Your task to perform on an android device: toggle location history Image 0: 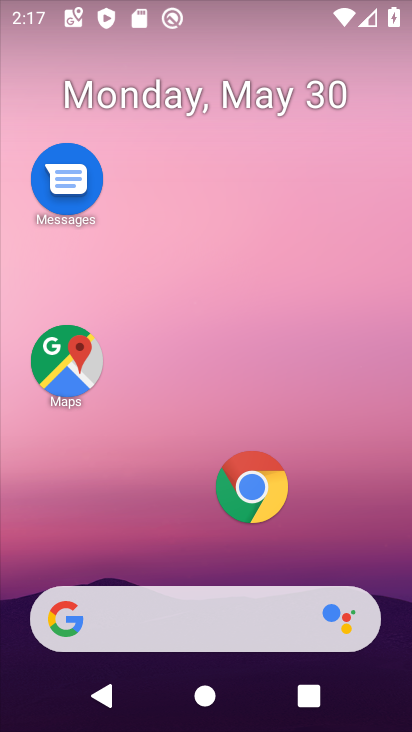
Step 0: drag from (144, 585) to (193, 201)
Your task to perform on an android device: toggle location history Image 1: 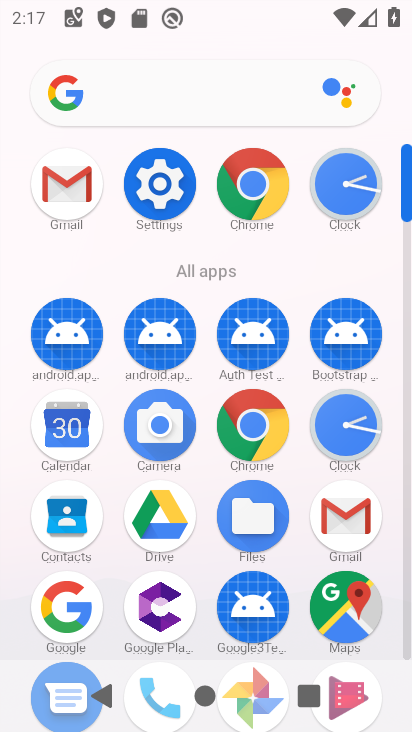
Step 1: click (156, 196)
Your task to perform on an android device: toggle location history Image 2: 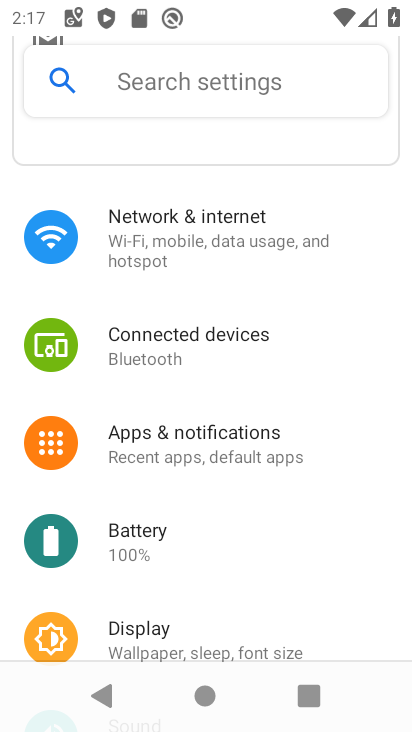
Step 2: drag from (189, 531) to (219, 341)
Your task to perform on an android device: toggle location history Image 3: 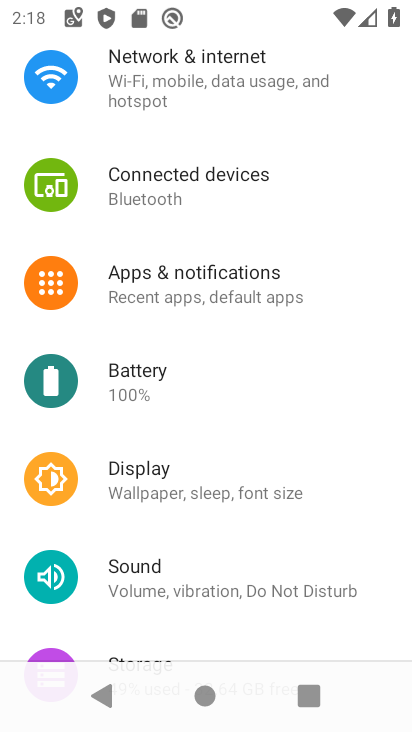
Step 3: drag from (198, 400) to (263, 204)
Your task to perform on an android device: toggle location history Image 4: 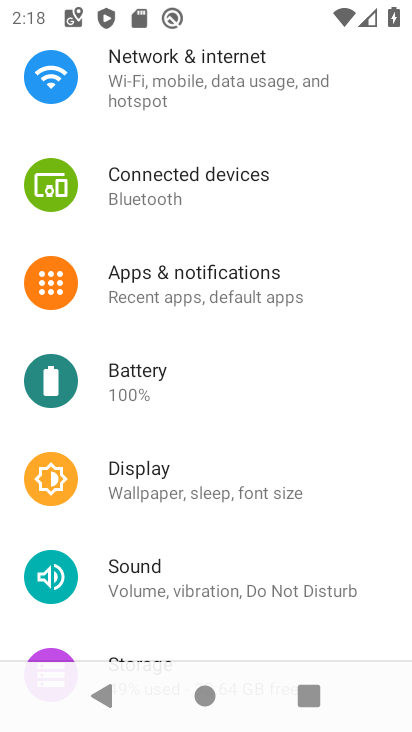
Step 4: drag from (170, 531) to (197, 354)
Your task to perform on an android device: toggle location history Image 5: 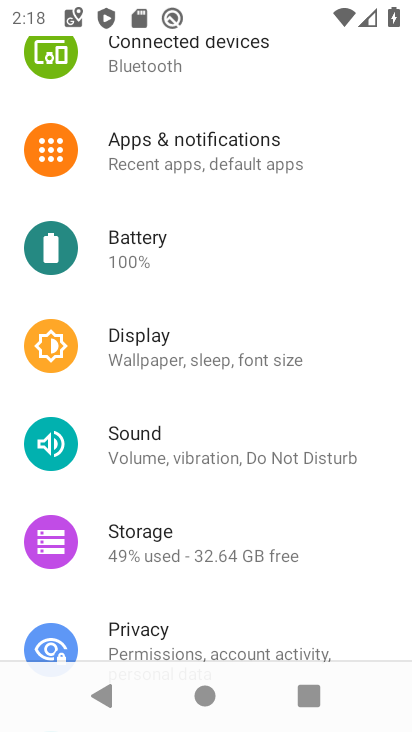
Step 5: drag from (153, 576) to (153, 303)
Your task to perform on an android device: toggle location history Image 6: 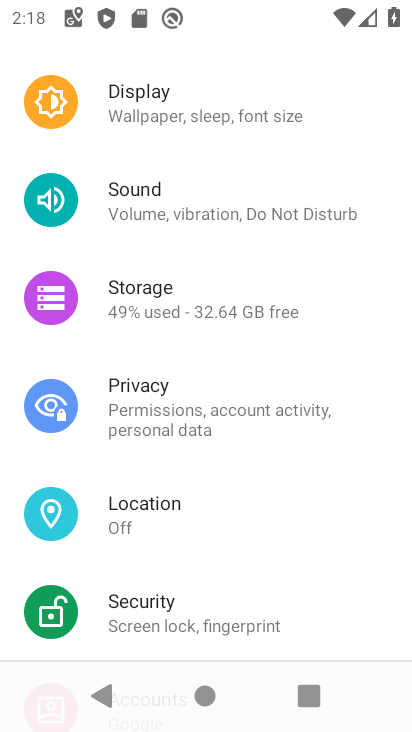
Step 6: click (138, 522)
Your task to perform on an android device: toggle location history Image 7: 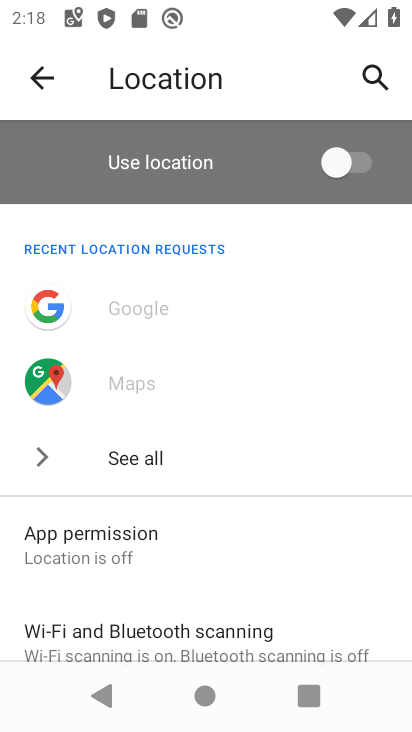
Step 7: drag from (185, 578) to (242, 489)
Your task to perform on an android device: toggle location history Image 8: 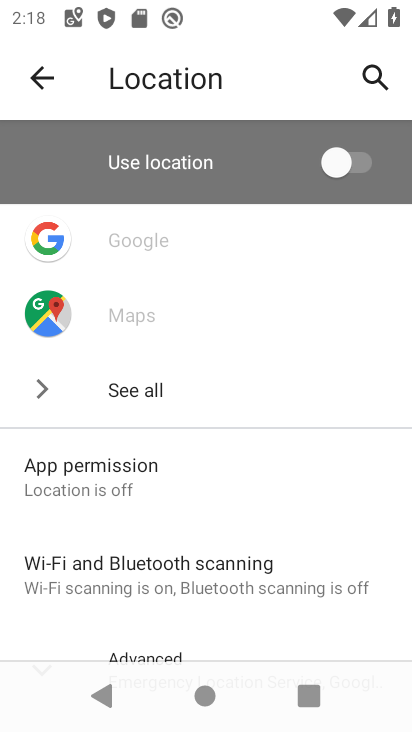
Step 8: drag from (210, 578) to (226, 309)
Your task to perform on an android device: toggle location history Image 9: 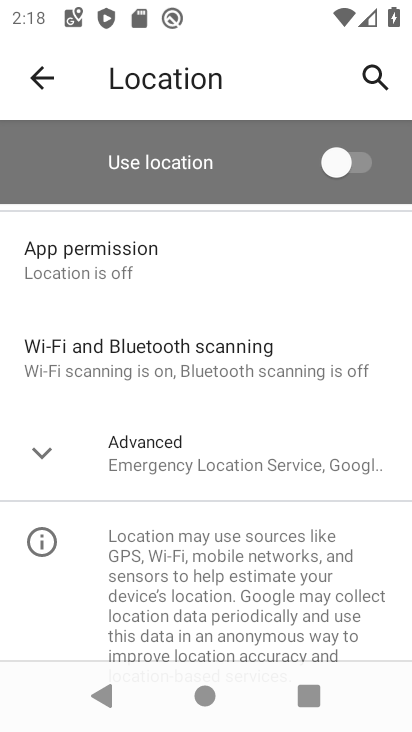
Step 9: click (188, 459)
Your task to perform on an android device: toggle location history Image 10: 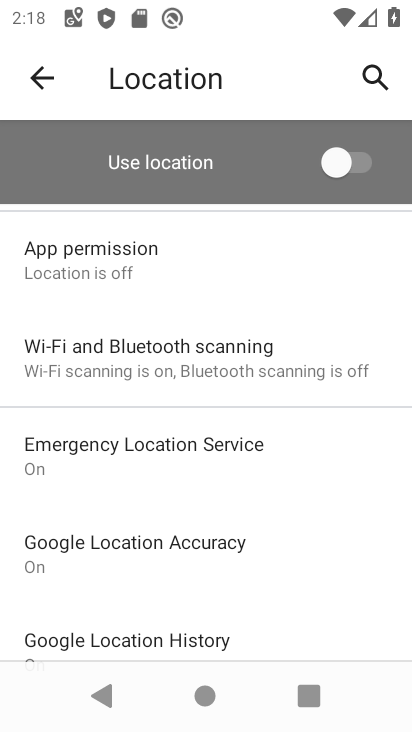
Step 10: click (186, 645)
Your task to perform on an android device: toggle location history Image 11: 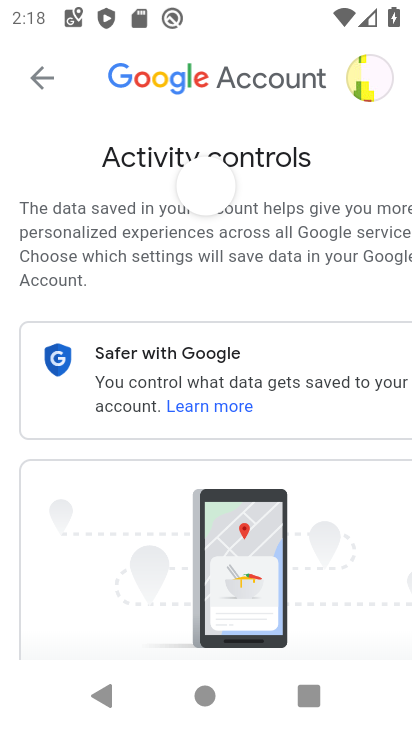
Step 11: drag from (325, 577) to (327, 292)
Your task to perform on an android device: toggle location history Image 12: 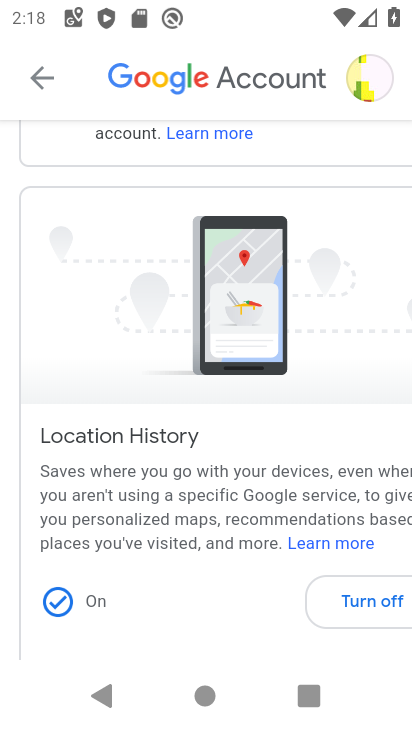
Step 12: click (365, 593)
Your task to perform on an android device: toggle location history Image 13: 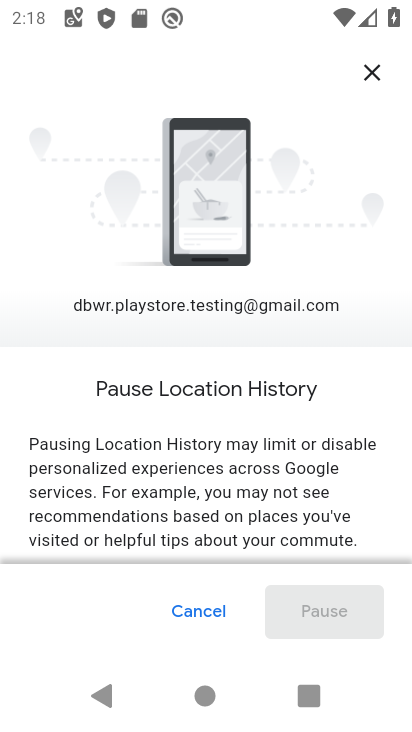
Step 13: drag from (267, 529) to (296, 5)
Your task to perform on an android device: toggle location history Image 14: 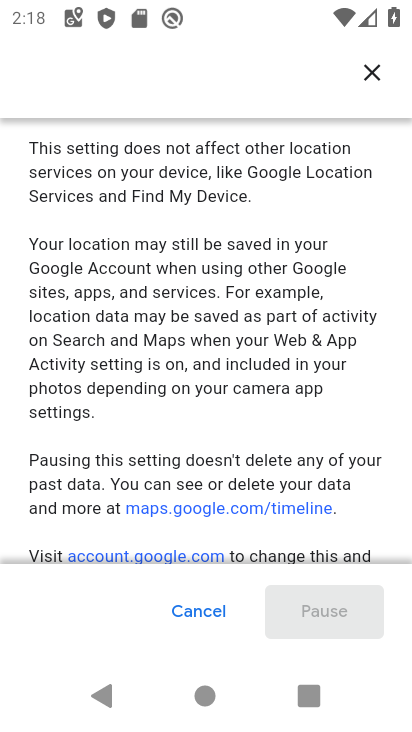
Step 14: drag from (281, 529) to (307, 54)
Your task to perform on an android device: toggle location history Image 15: 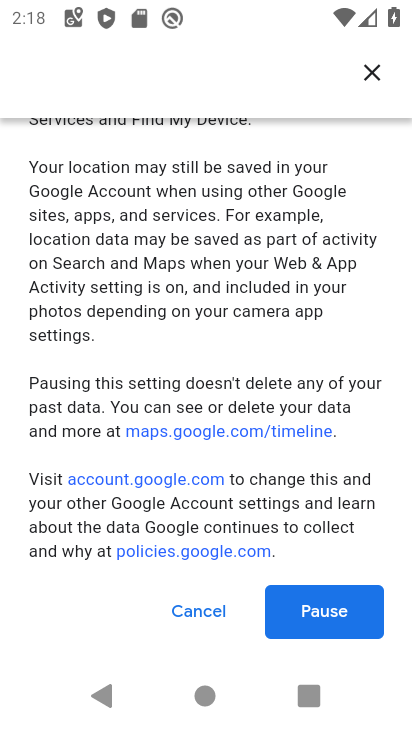
Step 15: click (307, 601)
Your task to perform on an android device: toggle location history Image 16: 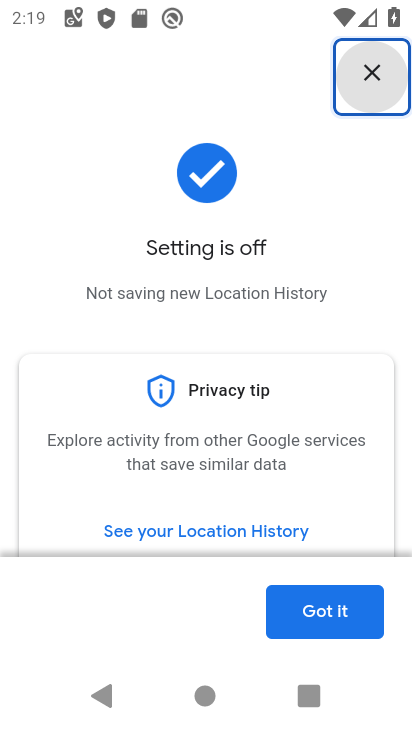
Step 16: click (298, 623)
Your task to perform on an android device: toggle location history Image 17: 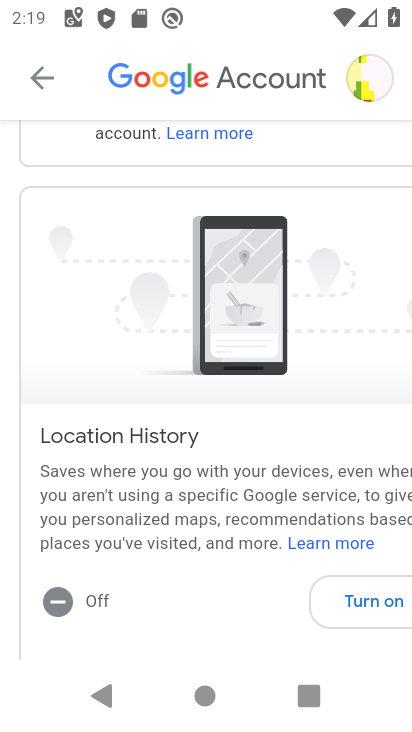
Step 17: task complete